Your task to perform on an android device: Go to Reddit.com Image 0: 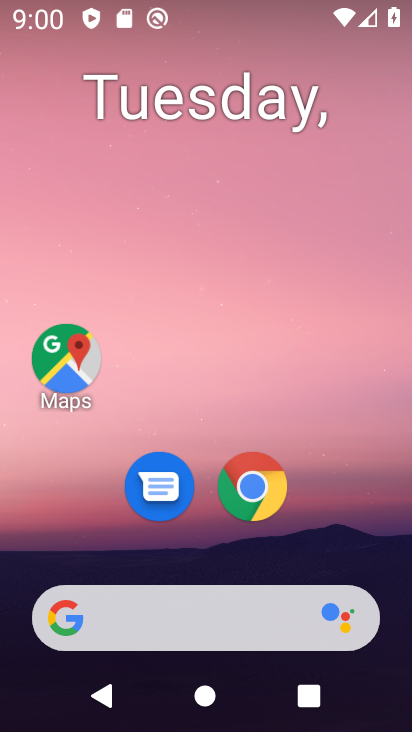
Step 0: press home button
Your task to perform on an android device: Go to Reddit.com Image 1: 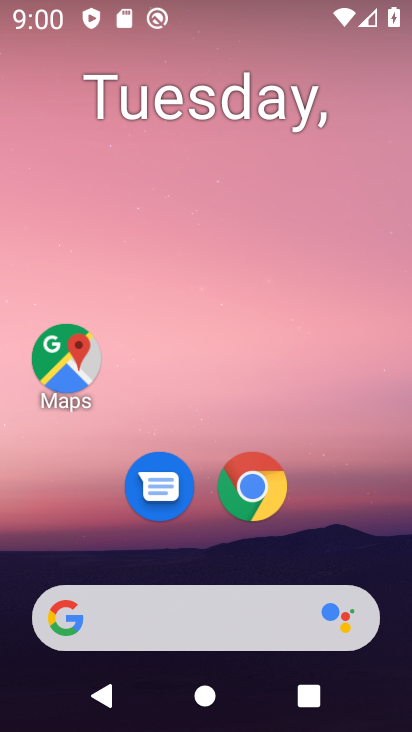
Step 1: drag from (339, 535) to (350, 193)
Your task to perform on an android device: Go to Reddit.com Image 2: 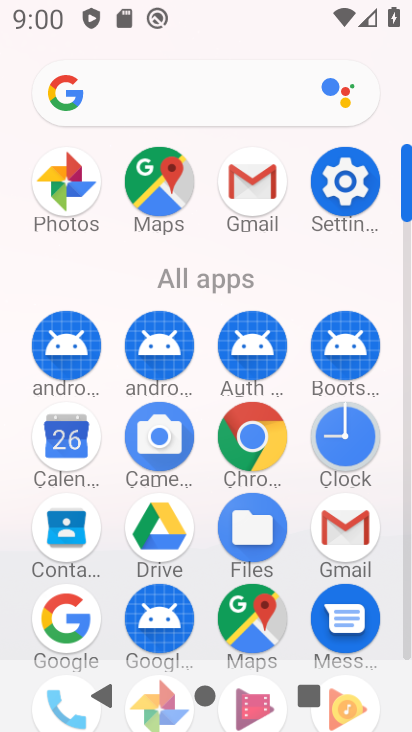
Step 2: click (249, 433)
Your task to perform on an android device: Go to Reddit.com Image 3: 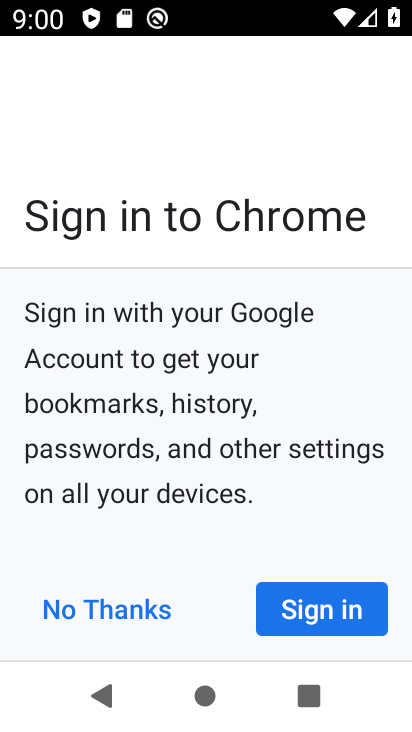
Step 3: click (140, 605)
Your task to perform on an android device: Go to Reddit.com Image 4: 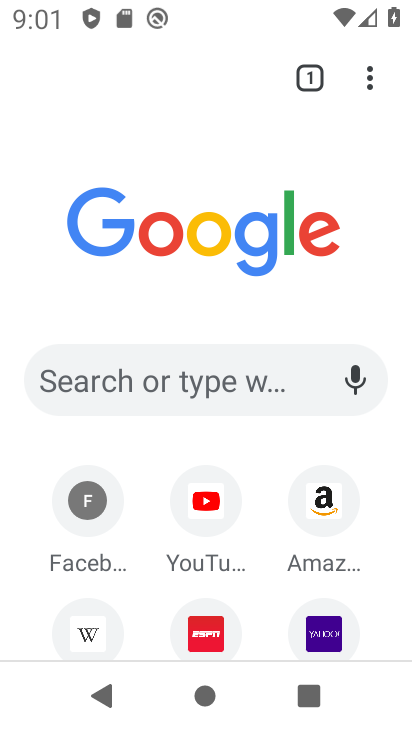
Step 4: click (280, 390)
Your task to perform on an android device: Go to Reddit.com Image 5: 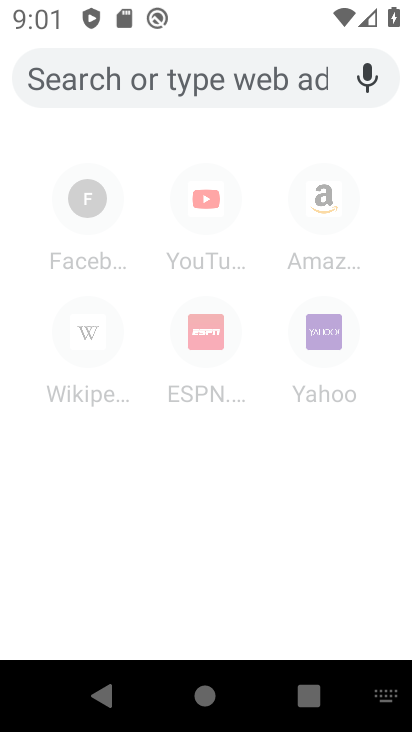
Step 5: type "reddit.com"
Your task to perform on an android device: Go to Reddit.com Image 6: 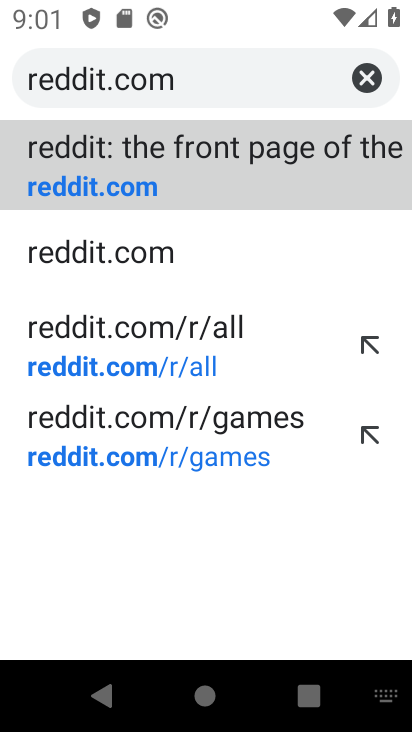
Step 6: click (338, 179)
Your task to perform on an android device: Go to Reddit.com Image 7: 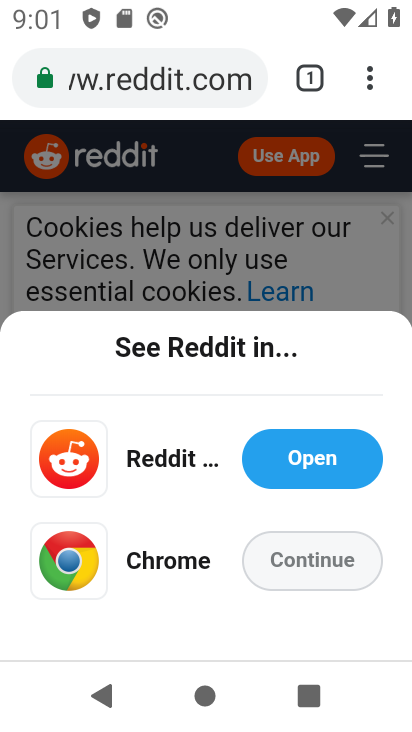
Step 7: task complete